Your task to perform on an android device: Open network settings Image 0: 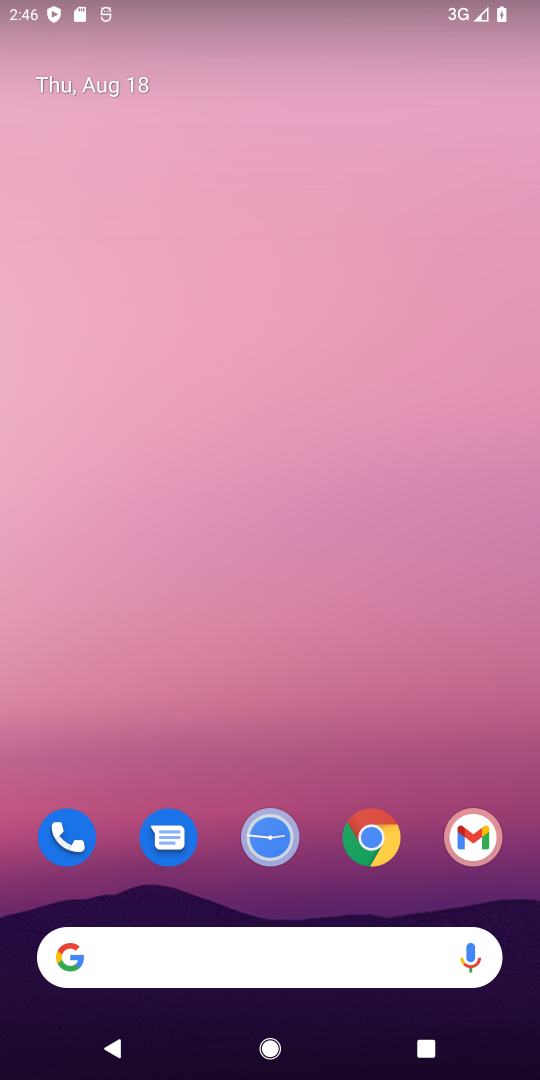
Step 0: drag from (317, 857) to (371, 145)
Your task to perform on an android device: Open network settings Image 1: 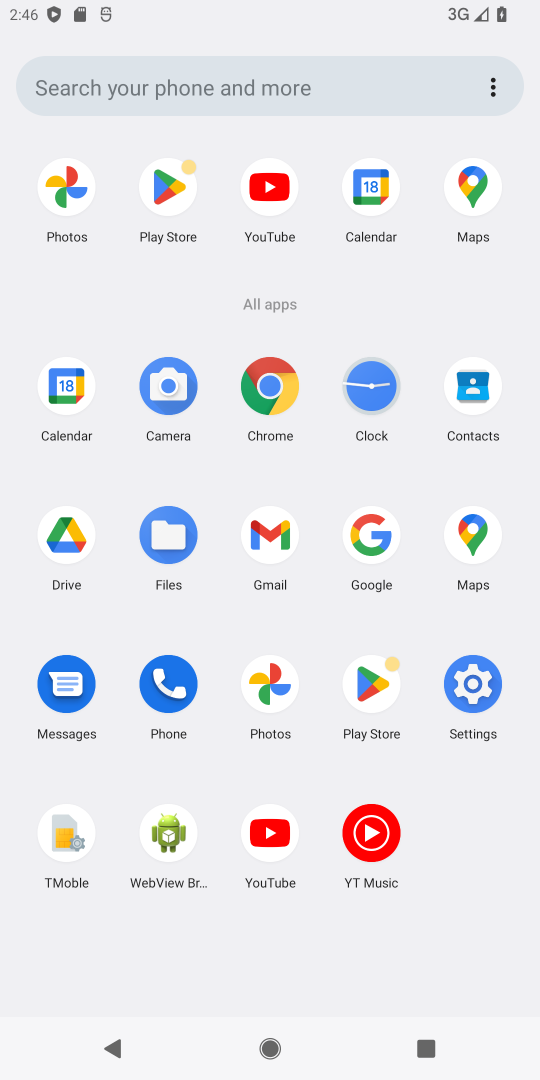
Step 1: click (476, 695)
Your task to perform on an android device: Open network settings Image 2: 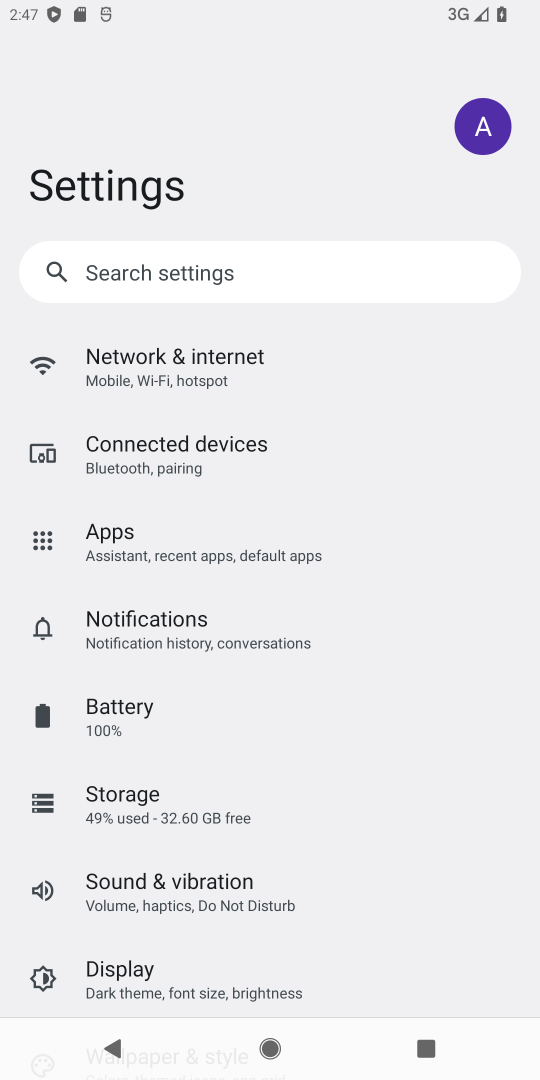
Step 2: click (132, 360)
Your task to perform on an android device: Open network settings Image 3: 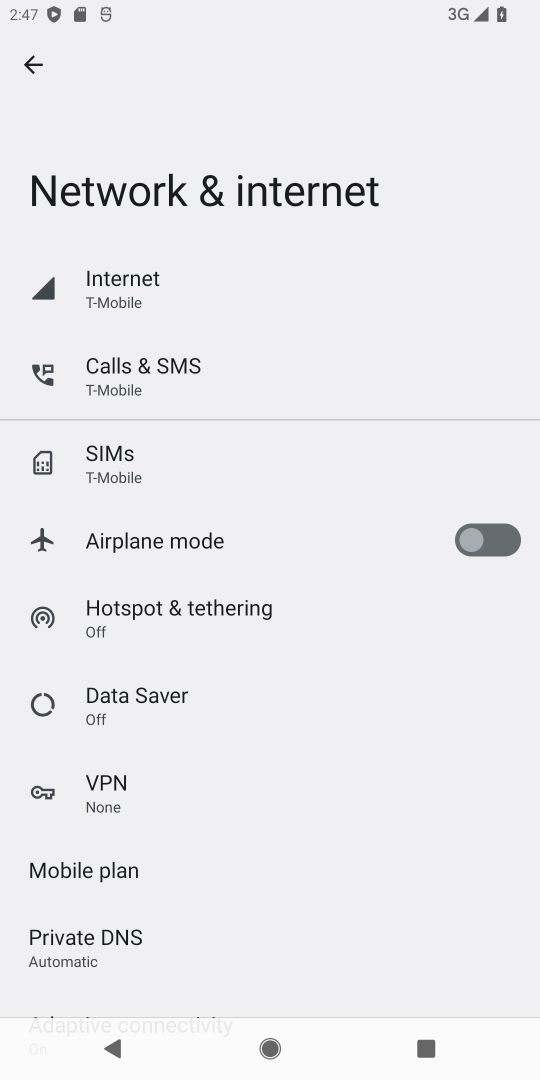
Step 3: task complete